Your task to perform on an android device: Go to wifi settings Image 0: 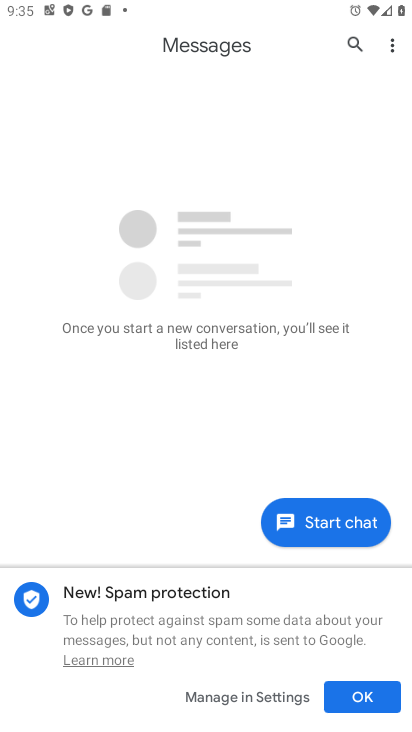
Step 0: press home button
Your task to perform on an android device: Go to wifi settings Image 1: 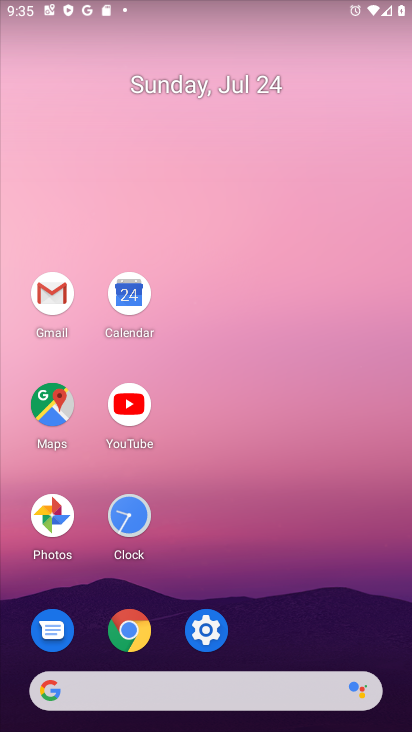
Step 1: click (205, 635)
Your task to perform on an android device: Go to wifi settings Image 2: 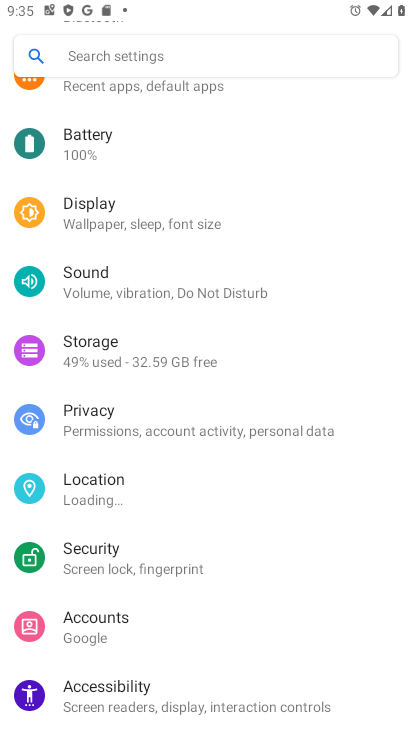
Step 2: drag from (211, 174) to (211, 439)
Your task to perform on an android device: Go to wifi settings Image 3: 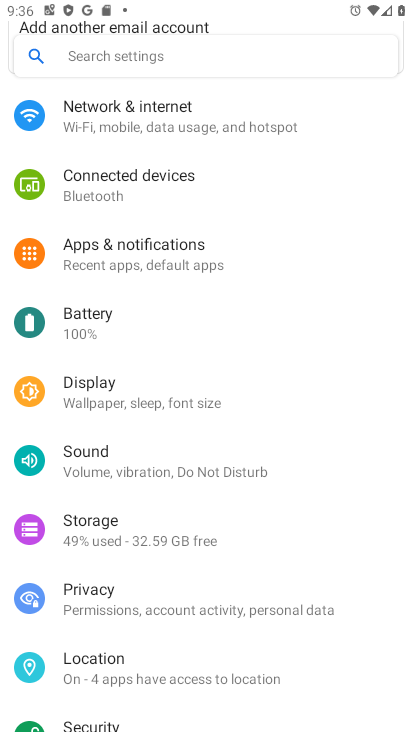
Step 3: click (152, 110)
Your task to perform on an android device: Go to wifi settings Image 4: 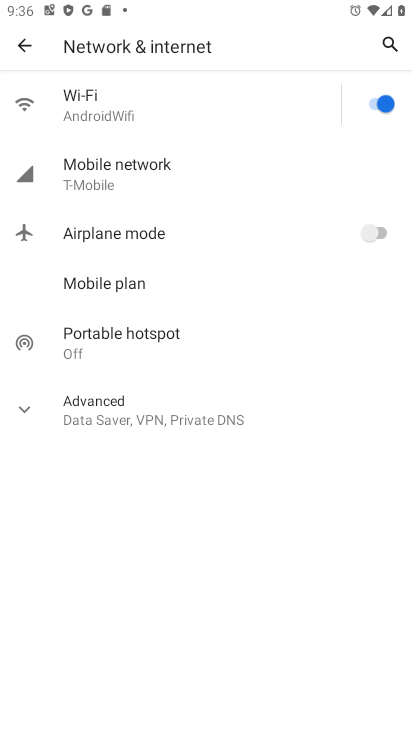
Step 4: click (97, 100)
Your task to perform on an android device: Go to wifi settings Image 5: 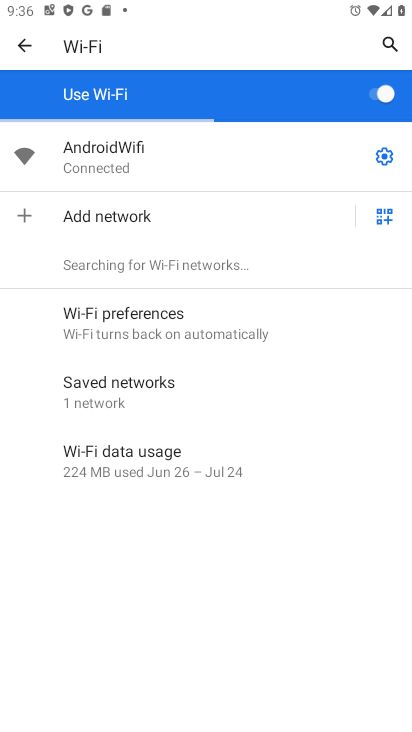
Step 5: task complete